Your task to perform on an android device: turn on the 24-hour format for clock Image 0: 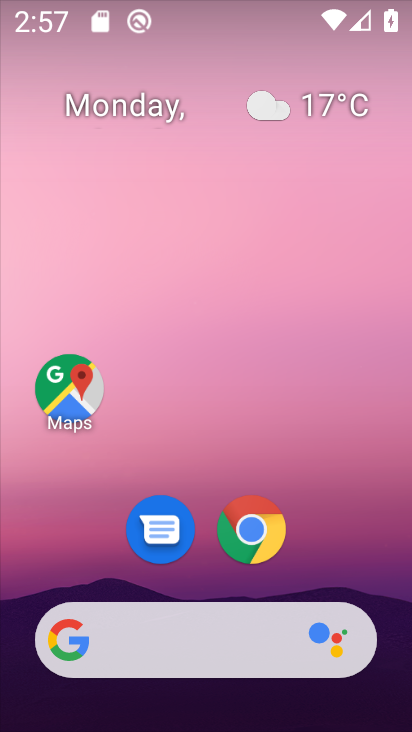
Step 0: press home button
Your task to perform on an android device: turn on the 24-hour format for clock Image 1: 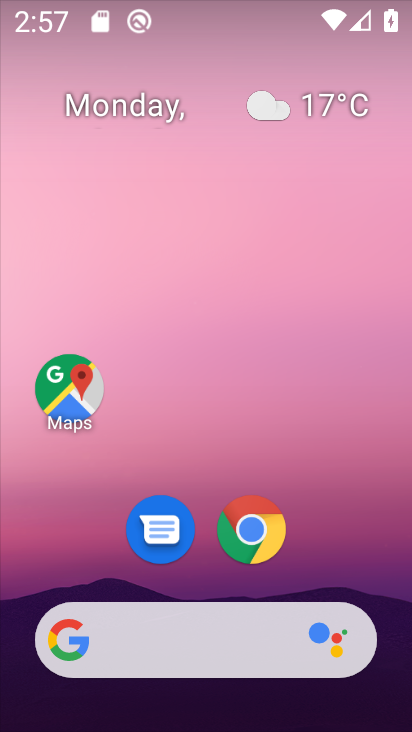
Step 1: drag from (203, 576) to (220, 20)
Your task to perform on an android device: turn on the 24-hour format for clock Image 2: 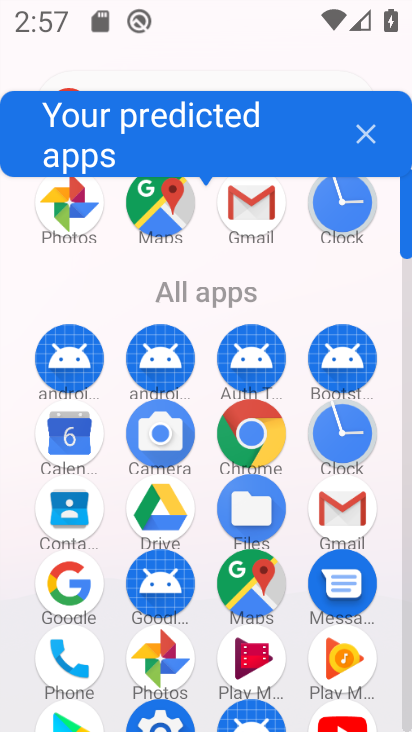
Step 2: click (340, 195)
Your task to perform on an android device: turn on the 24-hour format for clock Image 3: 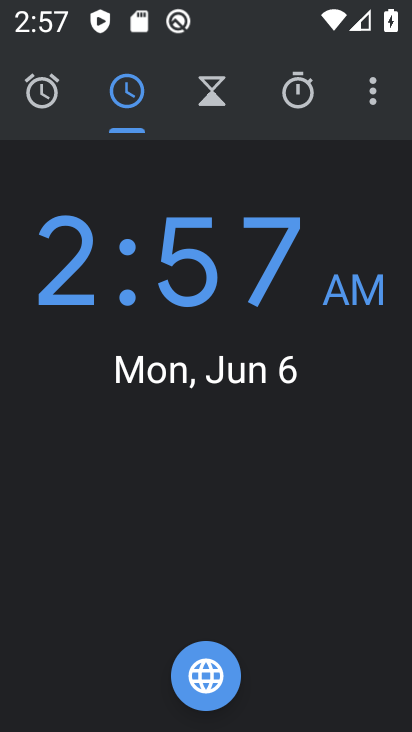
Step 3: click (372, 83)
Your task to perform on an android device: turn on the 24-hour format for clock Image 4: 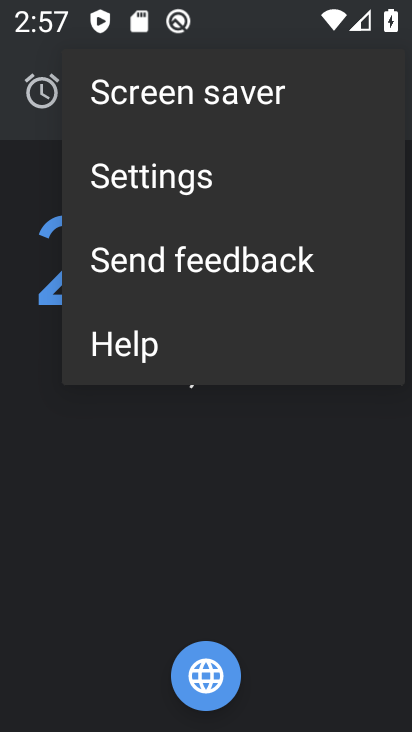
Step 4: click (224, 169)
Your task to perform on an android device: turn on the 24-hour format for clock Image 5: 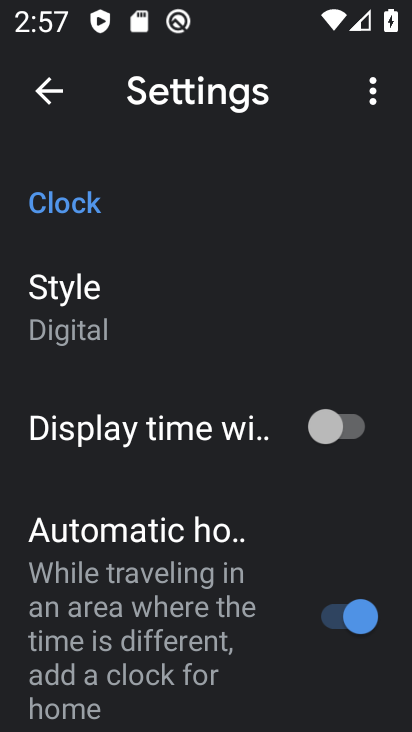
Step 5: drag from (247, 661) to (260, 106)
Your task to perform on an android device: turn on the 24-hour format for clock Image 6: 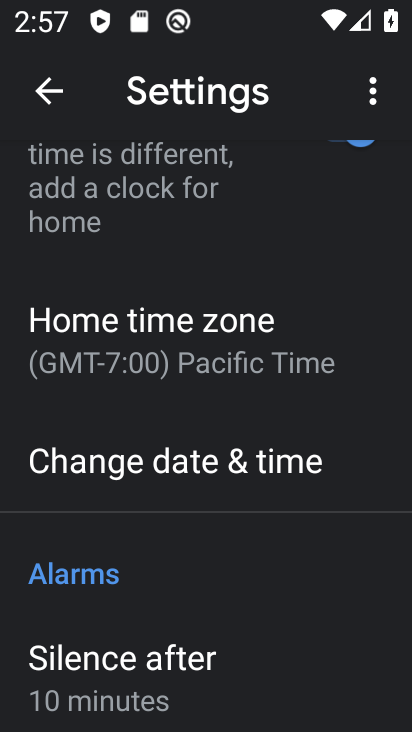
Step 6: click (334, 464)
Your task to perform on an android device: turn on the 24-hour format for clock Image 7: 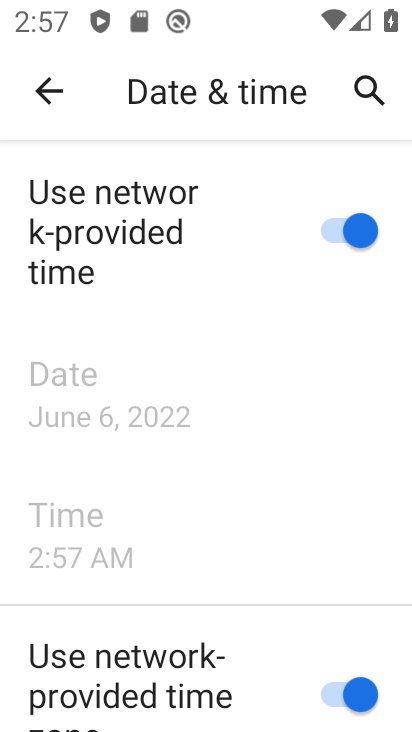
Step 7: drag from (281, 667) to (311, 59)
Your task to perform on an android device: turn on the 24-hour format for clock Image 8: 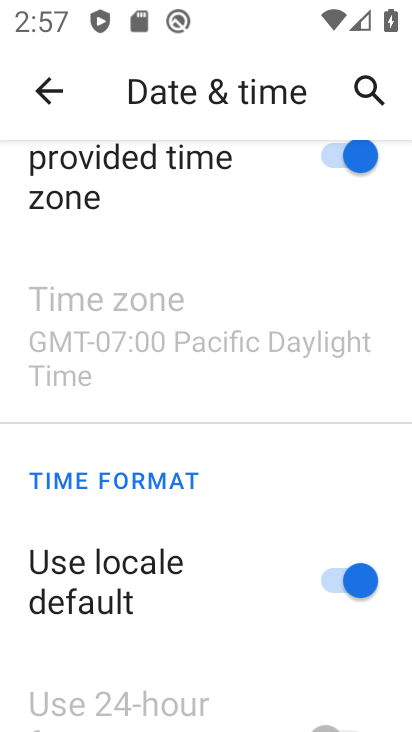
Step 8: drag from (176, 653) to (215, 139)
Your task to perform on an android device: turn on the 24-hour format for clock Image 9: 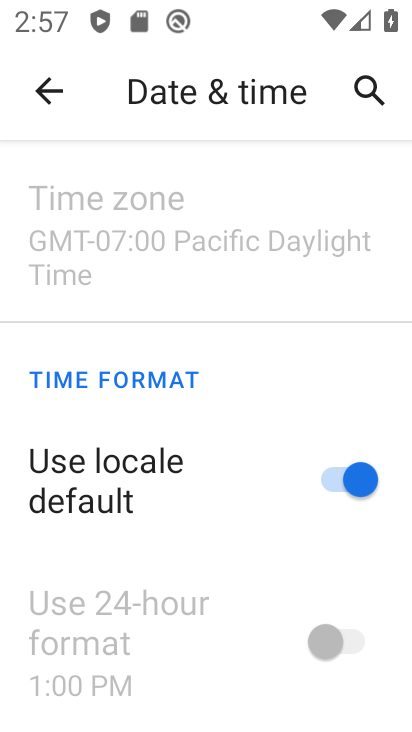
Step 9: click (329, 475)
Your task to perform on an android device: turn on the 24-hour format for clock Image 10: 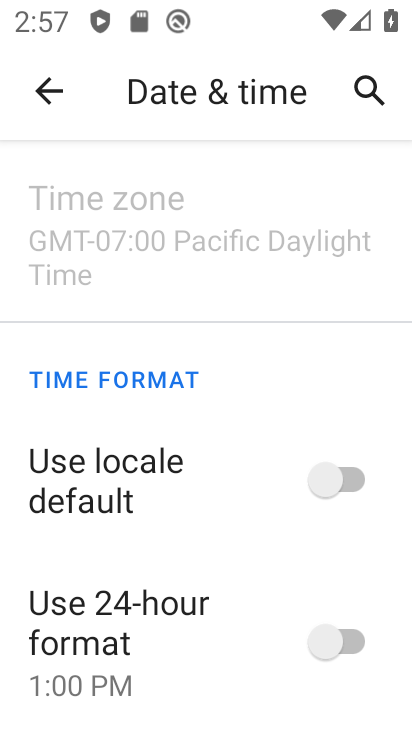
Step 10: task complete